Your task to perform on an android device: Open maps Image 0: 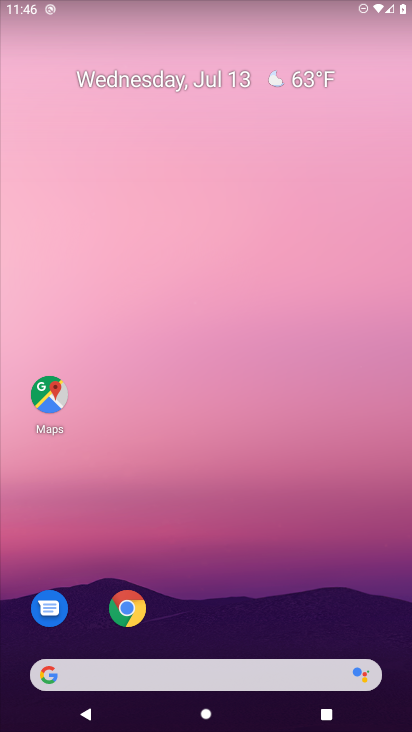
Step 0: press home button
Your task to perform on an android device: Open maps Image 1: 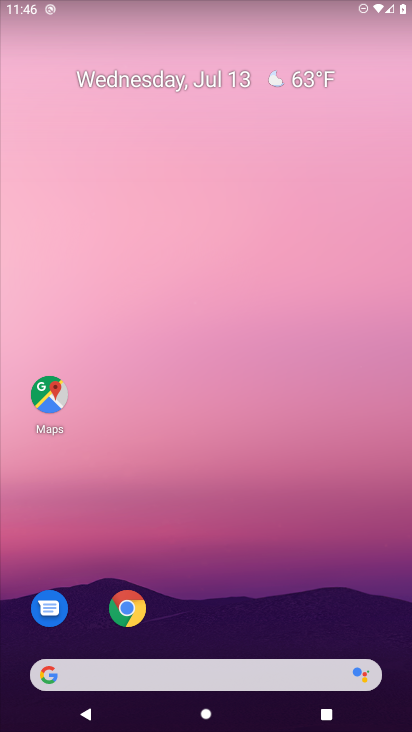
Step 1: drag from (224, 616) to (198, 230)
Your task to perform on an android device: Open maps Image 2: 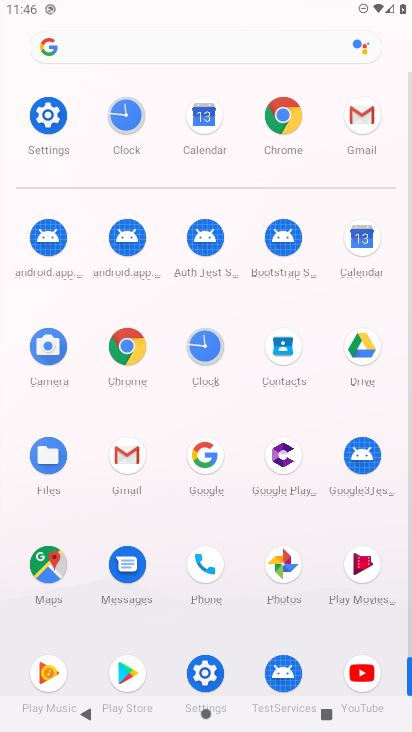
Step 2: click (50, 565)
Your task to perform on an android device: Open maps Image 3: 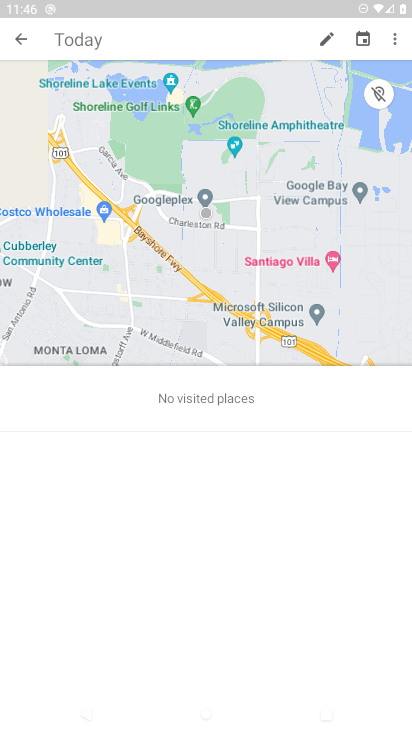
Step 3: task complete